Your task to perform on an android device: open sync settings in chrome Image 0: 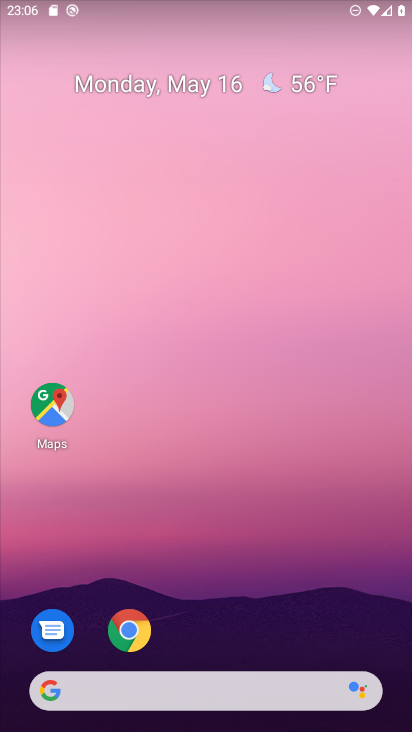
Step 0: click (125, 619)
Your task to perform on an android device: open sync settings in chrome Image 1: 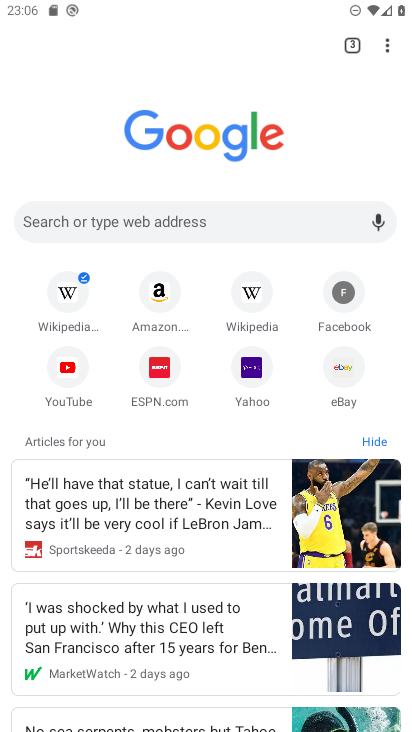
Step 1: click (386, 42)
Your task to perform on an android device: open sync settings in chrome Image 2: 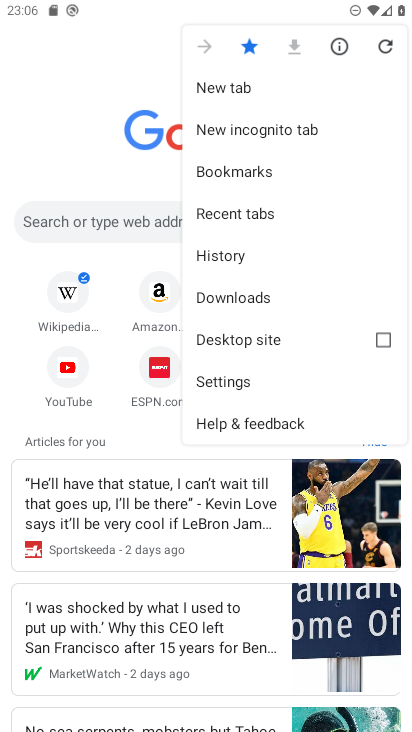
Step 2: click (240, 379)
Your task to perform on an android device: open sync settings in chrome Image 3: 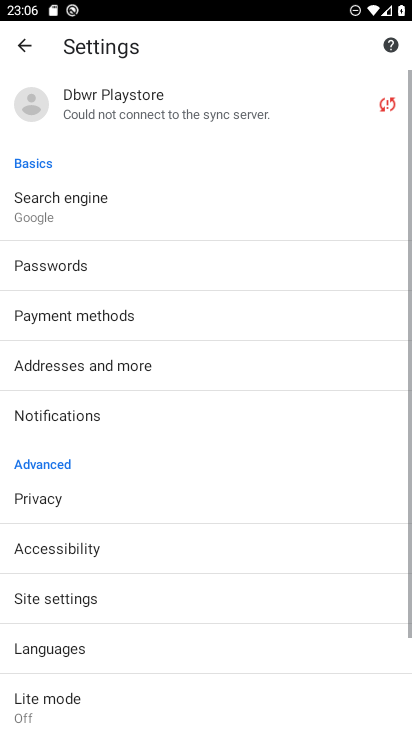
Step 3: click (206, 89)
Your task to perform on an android device: open sync settings in chrome Image 4: 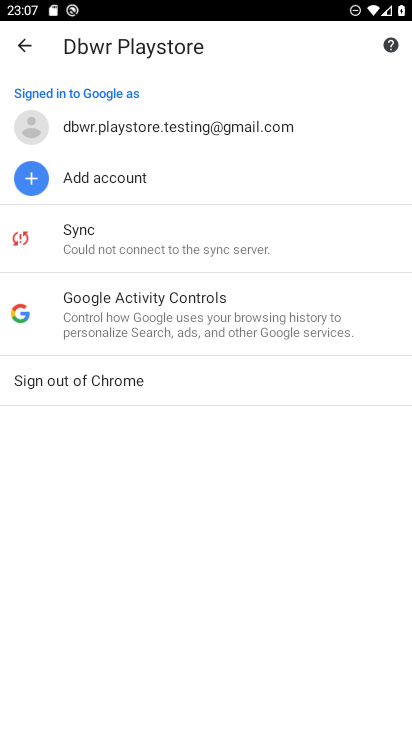
Step 4: click (98, 239)
Your task to perform on an android device: open sync settings in chrome Image 5: 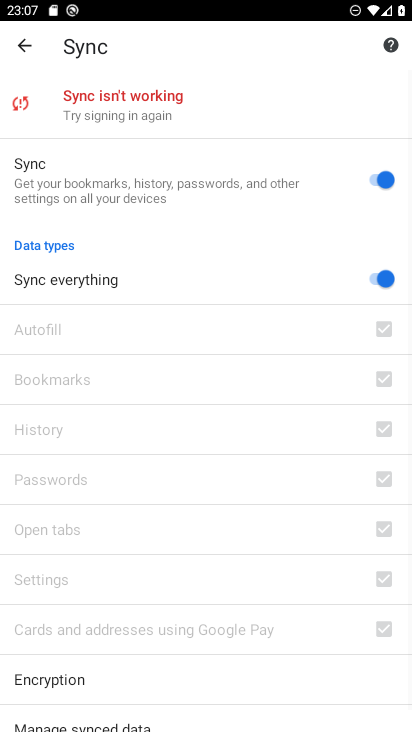
Step 5: task complete